Your task to perform on an android device: What is the recent news? Image 0: 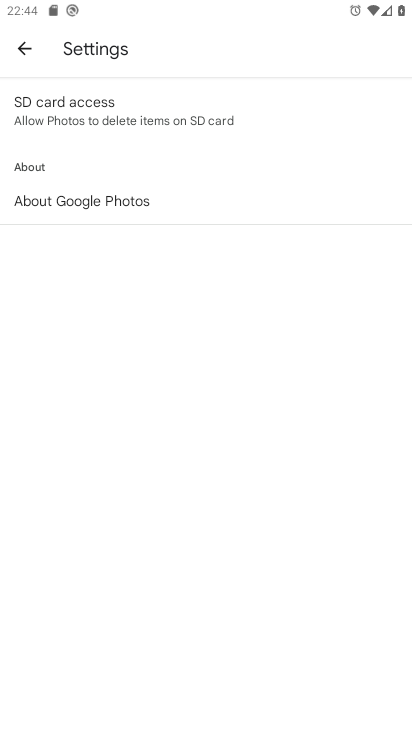
Step 0: press home button
Your task to perform on an android device: What is the recent news? Image 1: 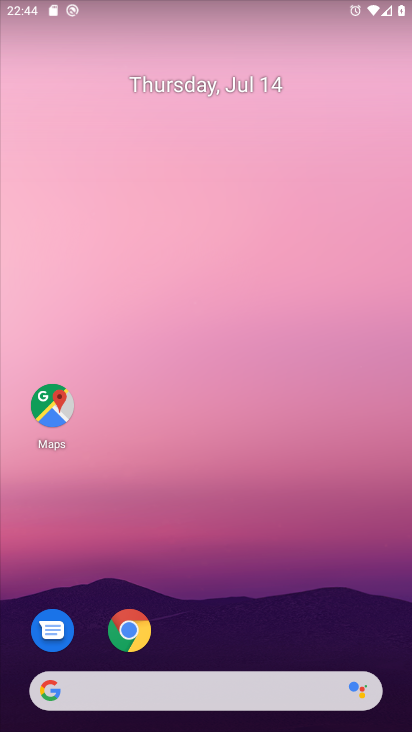
Step 1: drag from (193, 621) to (286, 52)
Your task to perform on an android device: What is the recent news? Image 2: 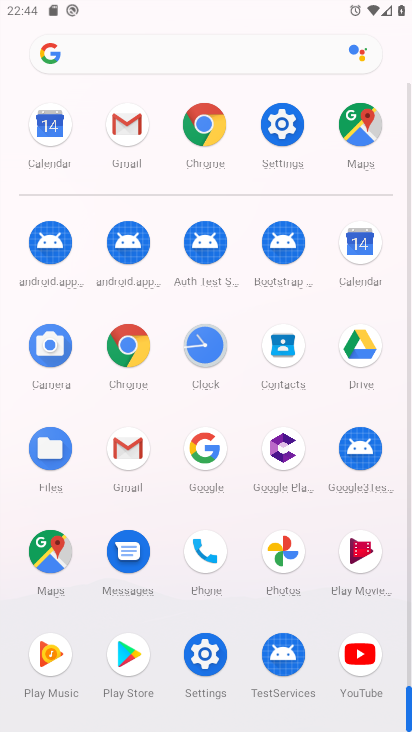
Step 2: click (121, 56)
Your task to perform on an android device: What is the recent news? Image 3: 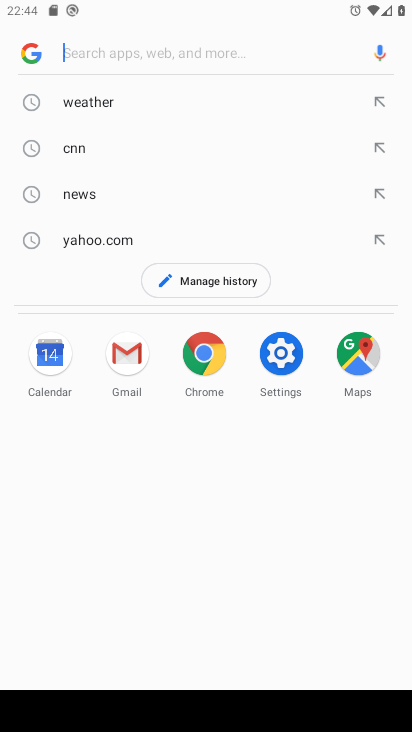
Step 3: type "recent news?"
Your task to perform on an android device: What is the recent news? Image 4: 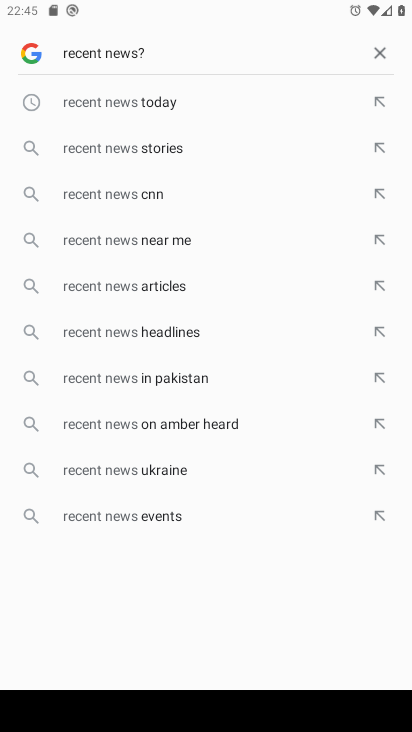
Step 4: click (147, 98)
Your task to perform on an android device: What is the recent news? Image 5: 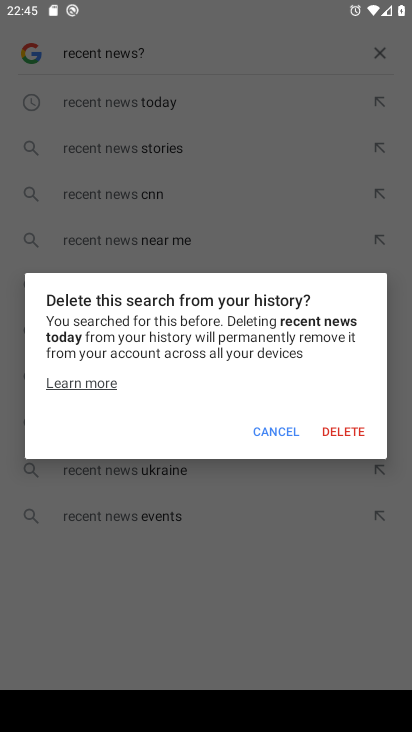
Step 5: click (326, 434)
Your task to perform on an android device: What is the recent news? Image 6: 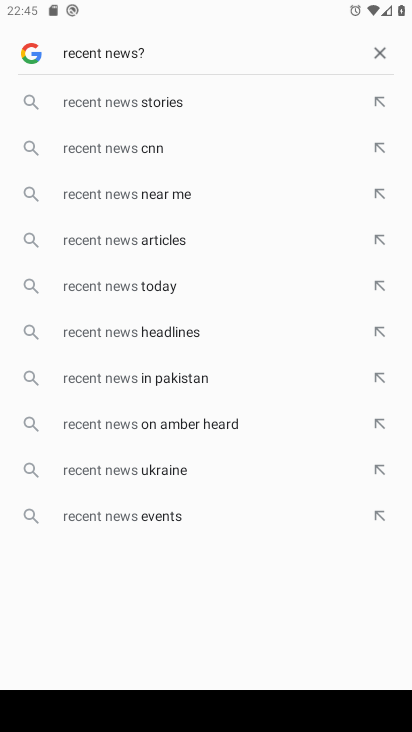
Step 6: click (78, 284)
Your task to perform on an android device: What is the recent news? Image 7: 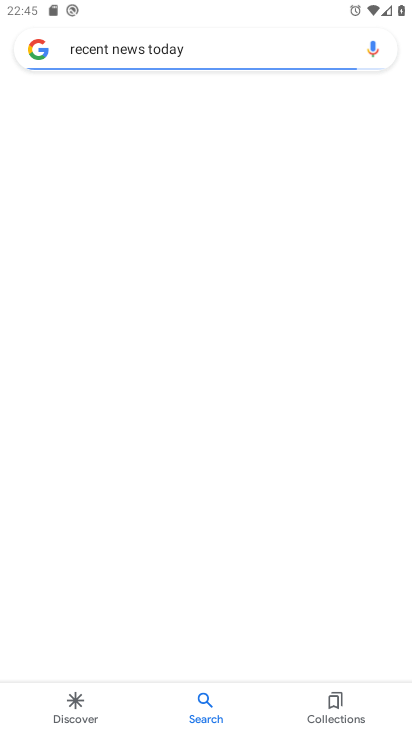
Step 7: task complete